Your task to perform on an android device: toggle sleep mode Image 0: 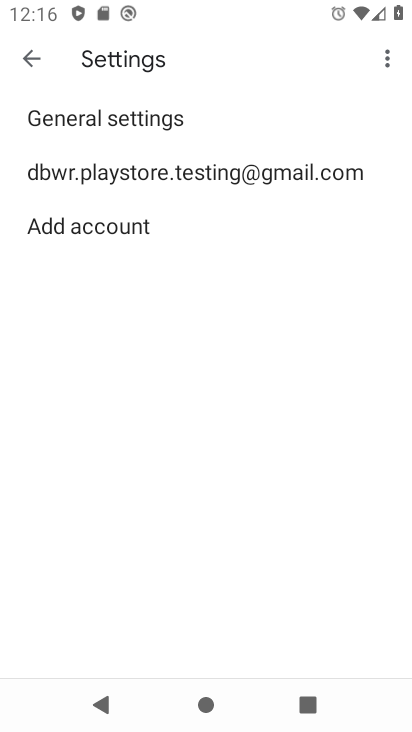
Step 0: press home button
Your task to perform on an android device: toggle sleep mode Image 1: 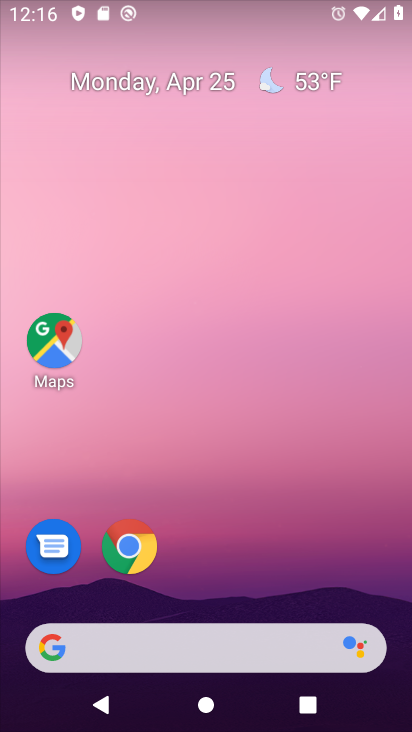
Step 1: drag from (222, 588) to (193, 142)
Your task to perform on an android device: toggle sleep mode Image 2: 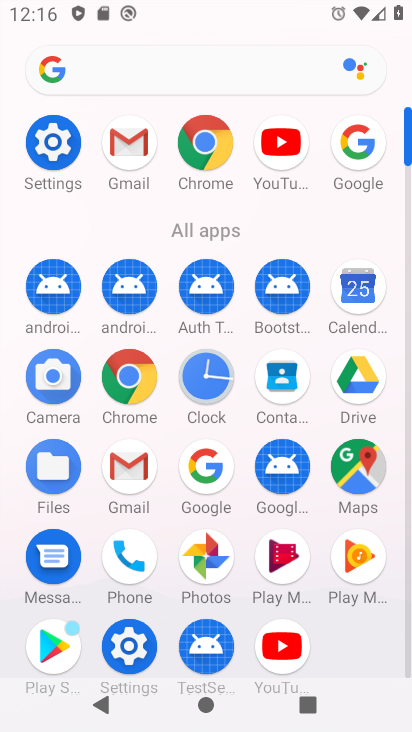
Step 2: click (62, 146)
Your task to perform on an android device: toggle sleep mode Image 3: 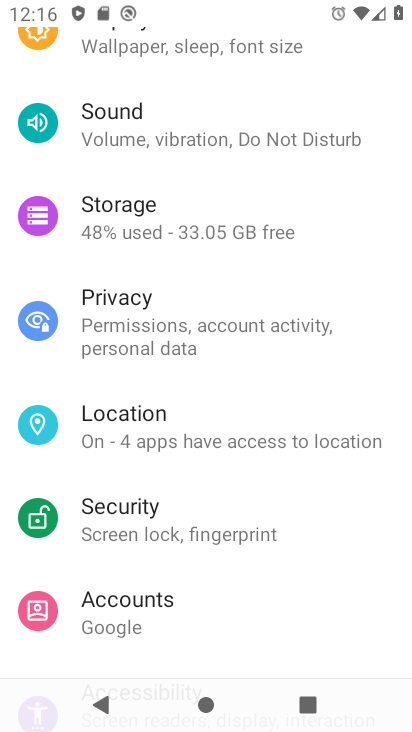
Step 3: click (194, 44)
Your task to perform on an android device: toggle sleep mode Image 4: 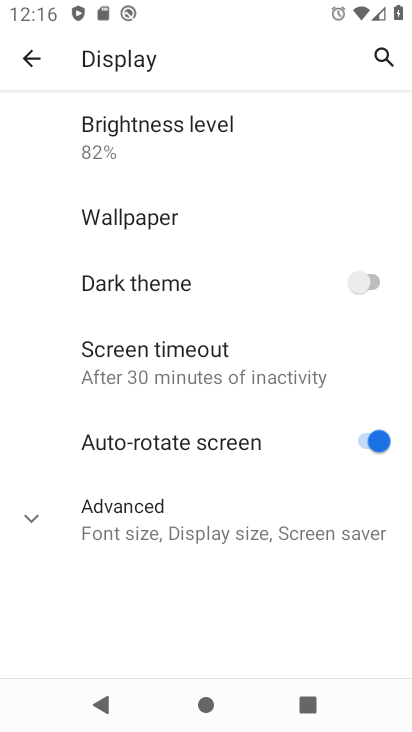
Step 4: click (167, 369)
Your task to perform on an android device: toggle sleep mode Image 5: 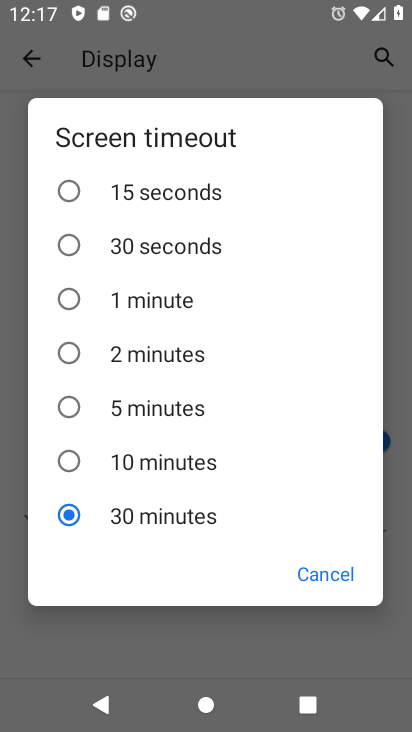
Step 5: click (167, 386)
Your task to perform on an android device: toggle sleep mode Image 6: 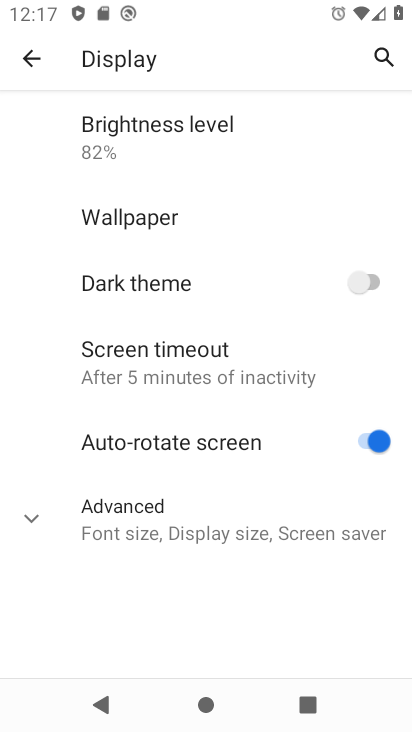
Step 6: task complete